Your task to perform on an android device: Open location settings Image 0: 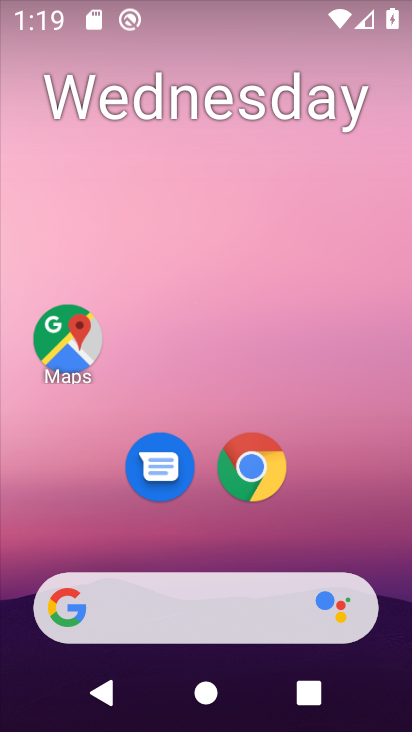
Step 0: drag from (389, 597) to (332, 153)
Your task to perform on an android device: Open location settings Image 1: 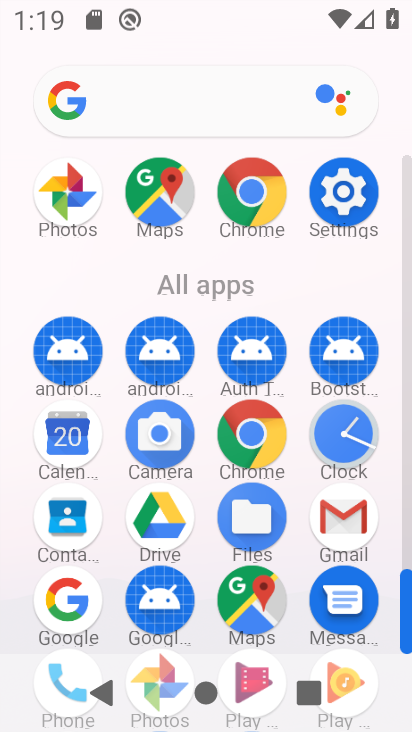
Step 1: click (405, 664)
Your task to perform on an android device: Open location settings Image 2: 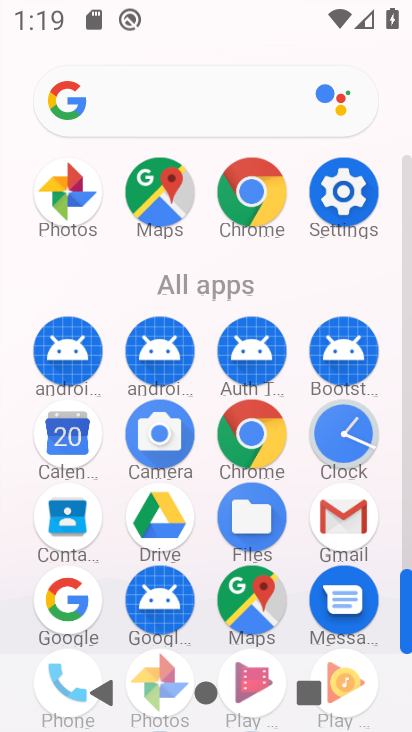
Step 2: drag from (406, 547) to (407, 486)
Your task to perform on an android device: Open location settings Image 3: 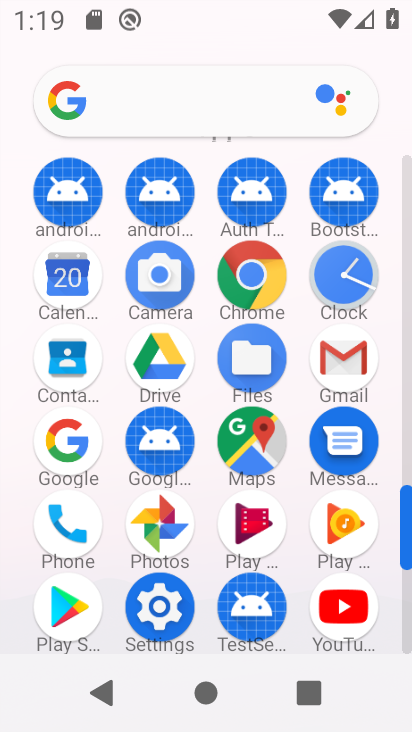
Step 3: click (158, 607)
Your task to perform on an android device: Open location settings Image 4: 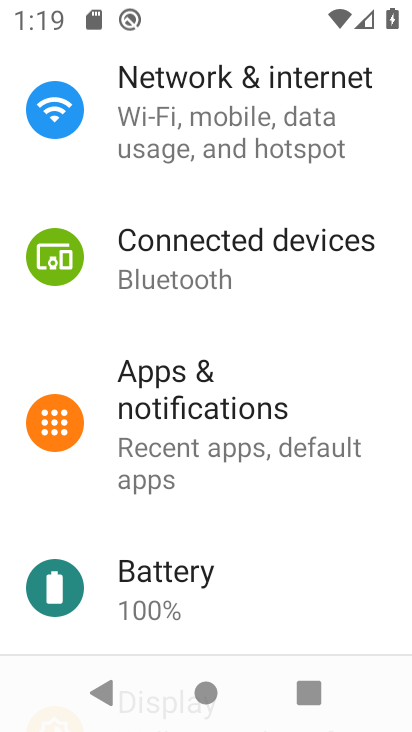
Step 4: drag from (317, 594) to (352, 267)
Your task to perform on an android device: Open location settings Image 5: 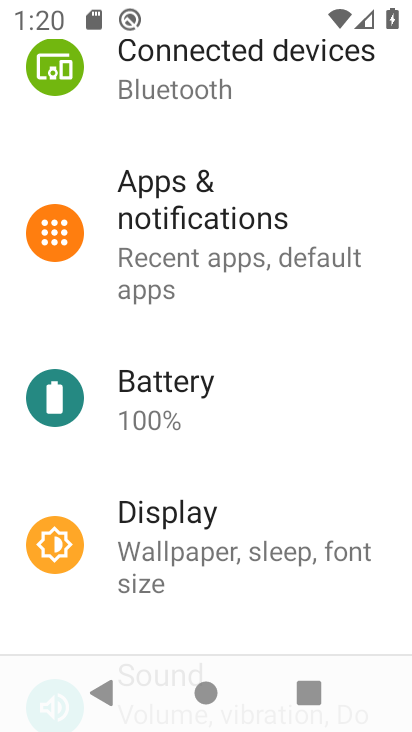
Step 5: drag from (375, 563) to (356, 276)
Your task to perform on an android device: Open location settings Image 6: 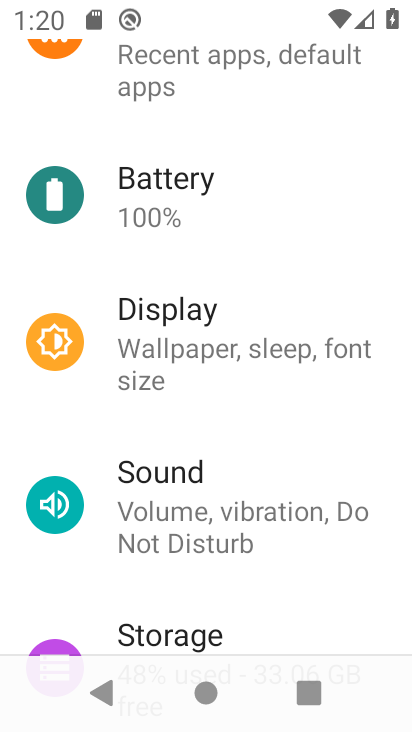
Step 6: drag from (361, 598) to (376, 284)
Your task to perform on an android device: Open location settings Image 7: 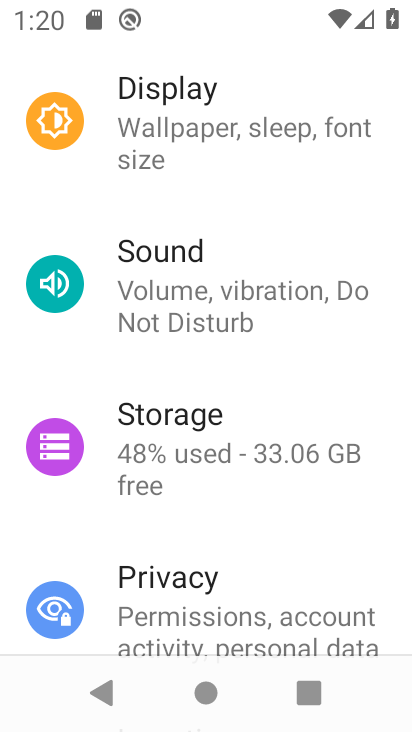
Step 7: drag from (337, 574) to (334, 218)
Your task to perform on an android device: Open location settings Image 8: 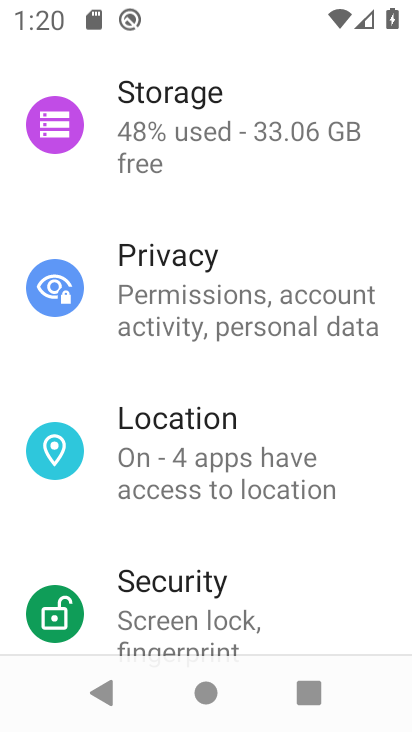
Step 8: click (171, 456)
Your task to perform on an android device: Open location settings Image 9: 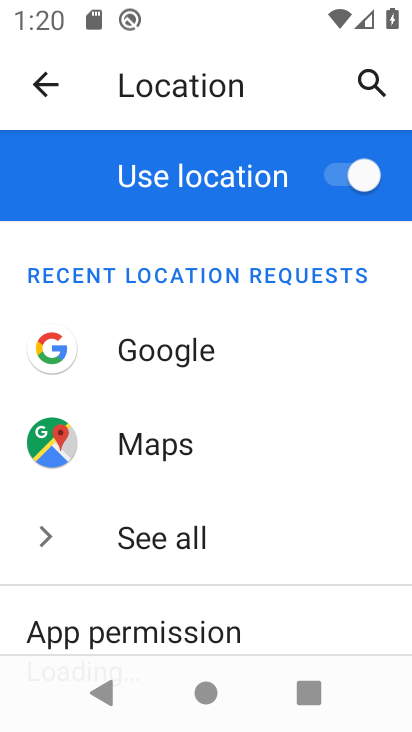
Step 9: drag from (297, 612) to (292, 333)
Your task to perform on an android device: Open location settings Image 10: 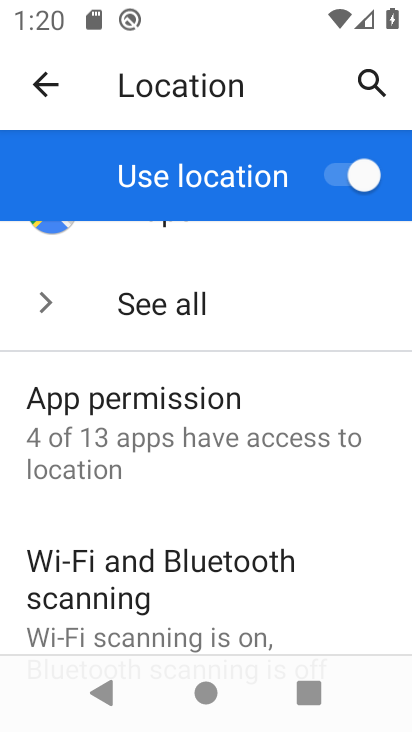
Step 10: drag from (277, 584) to (274, 292)
Your task to perform on an android device: Open location settings Image 11: 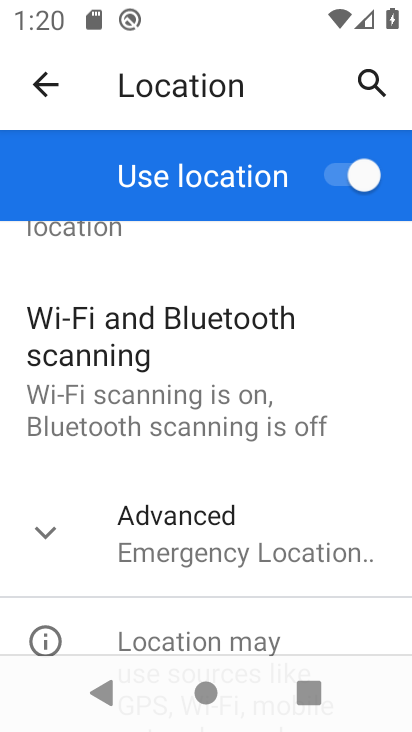
Step 11: click (43, 534)
Your task to perform on an android device: Open location settings Image 12: 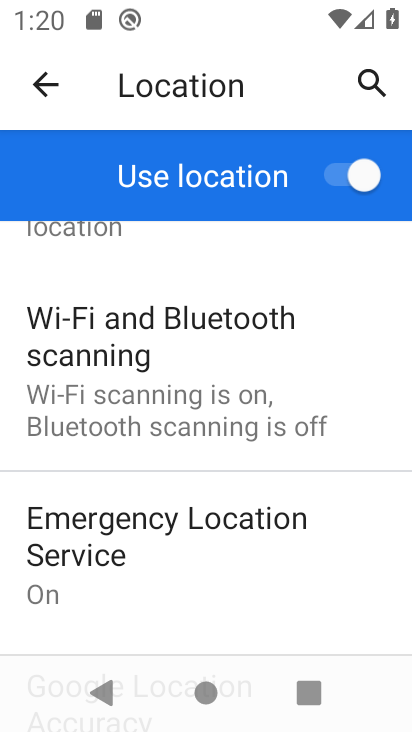
Step 12: task complete